Your task to perform on an android device: Add macbook air to the cart on amazon Image 0: 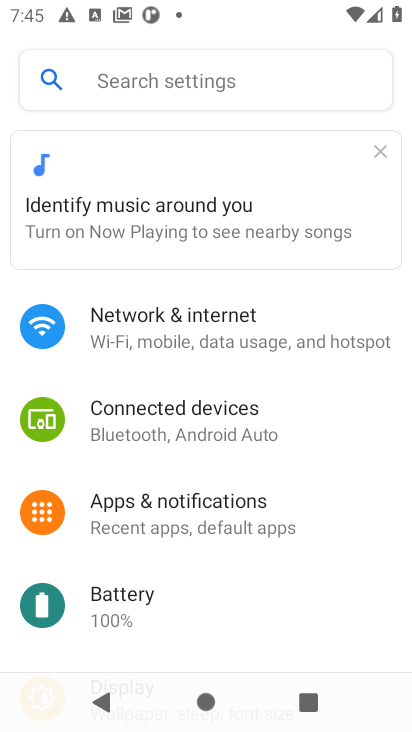
Step 0: press home button
Your task to perform on an android device: Add macbook air to the cart on amazon Image 1: 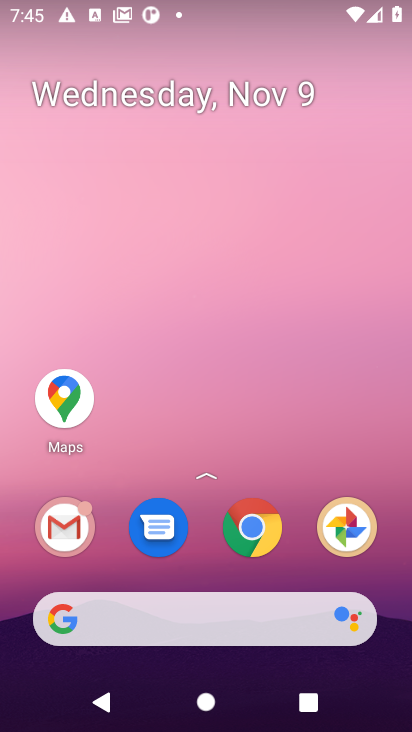
Step 1: click (248, 536)
Your task to perform on an android device: Add macbook air to the cart on amazon Image 2: 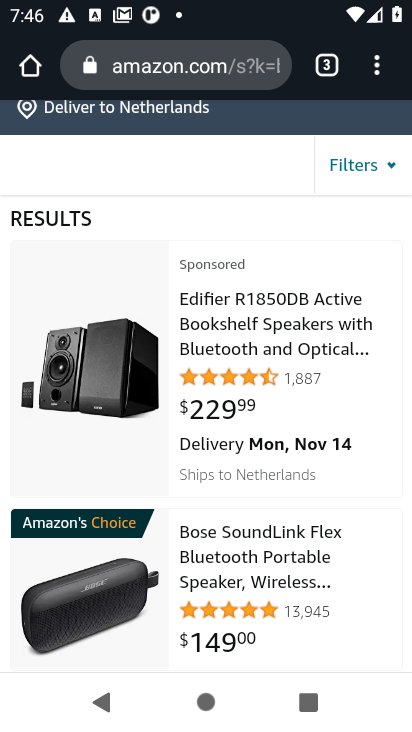
Step 2: drag from (201, 227) to (196, 378)
Your task to perform on an android device: Add macbook air to the cart on amazon Image 3: 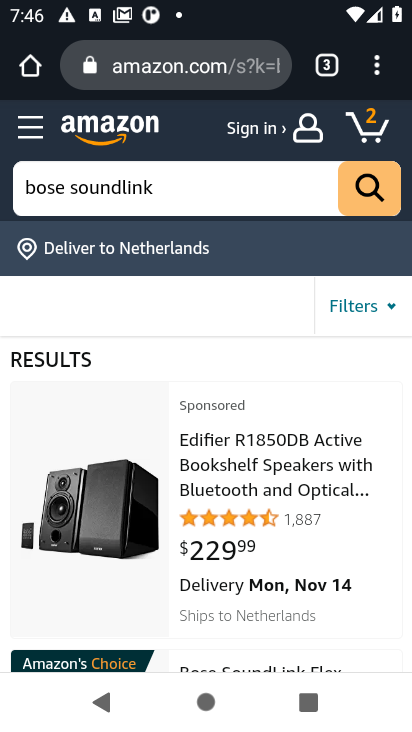
Step 3: click (171, 199)
Your task to perform on an android device: Add macbook air to the cart on amazon Image 4: 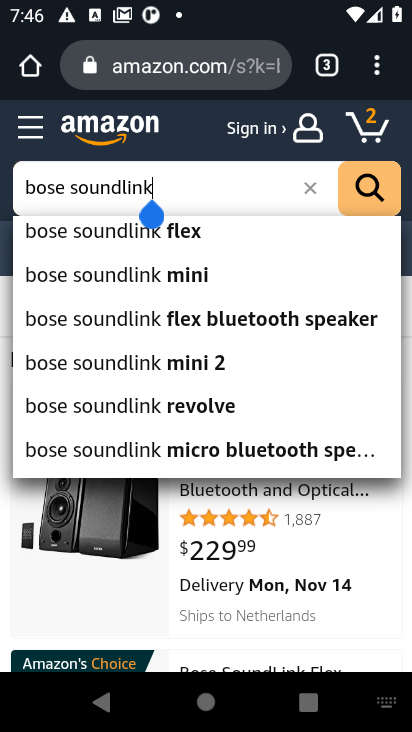
Step 4: click (308, 195)
Your task to perform on an android device: Add macbook air to the cart on amazon Image 5: 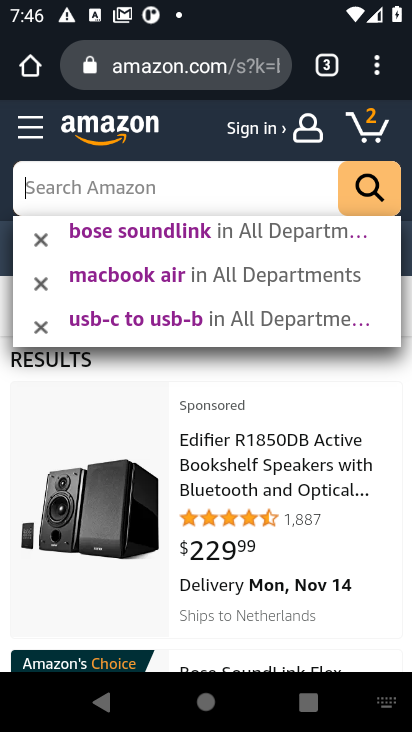
Step 5: type "macbook air"
Your task to perform on an android device: Add macbook air to the cart on amazon Image 6: 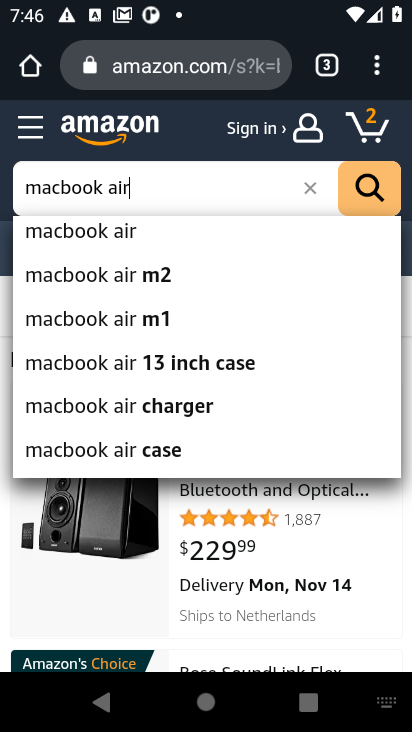
Step 6: click (95, 239)
Your task to perform on an android device: Add macbook air to the cart on amazon Image 7: 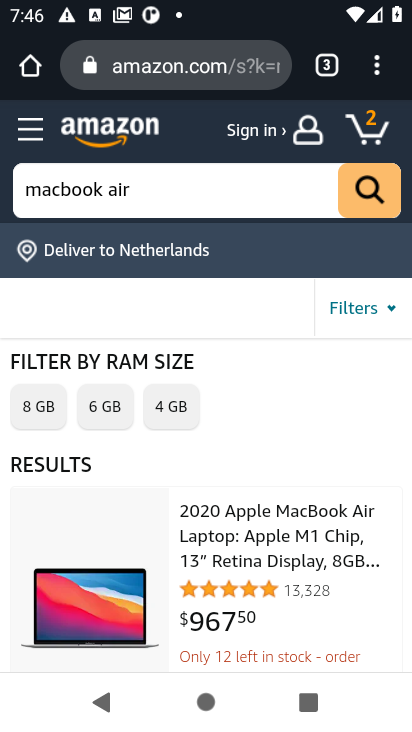
Step 7: drag from (96, 584) to (114, 293)
Your task to perform on an android device: Add macbook air to the cart on amazon Image 8: 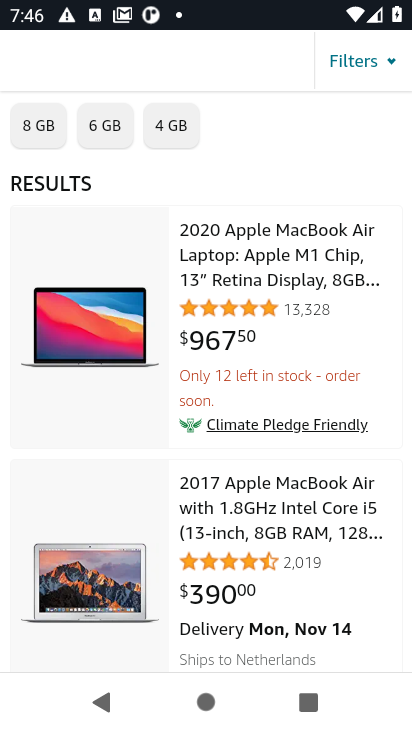
Step 8: drag from (95, 528) to (103, 218)
Your task to perform on an android device: Add macbook air to the cart on amazon Image 9: 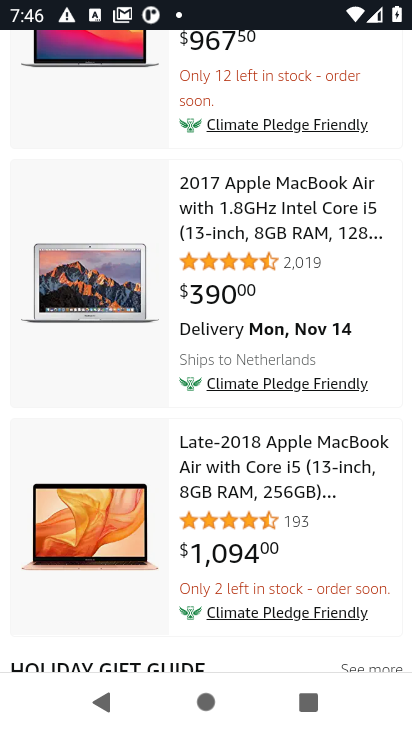
Step 9: click (116, 284)
Your task to perform on an android device: Add macbook air to the cart on amazon Image 10: 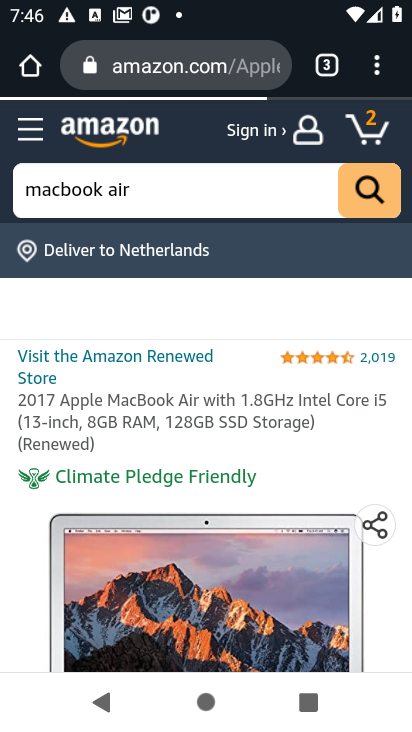
Step 10: drag from (140, 471) to (153, 180)
Your task to perform on an android device: Add macbook air to the cart on amazon Image 11: 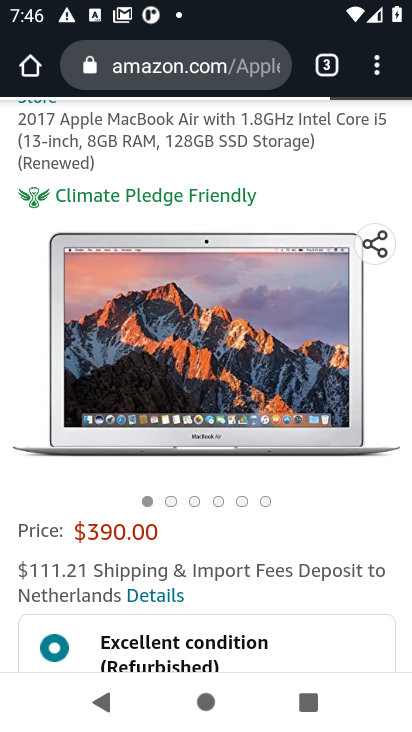
Step 11: drag from (164, 487) to (156, 183)
Your task to perform on an android device: Add macbook air to the cart on amazon Image 12: 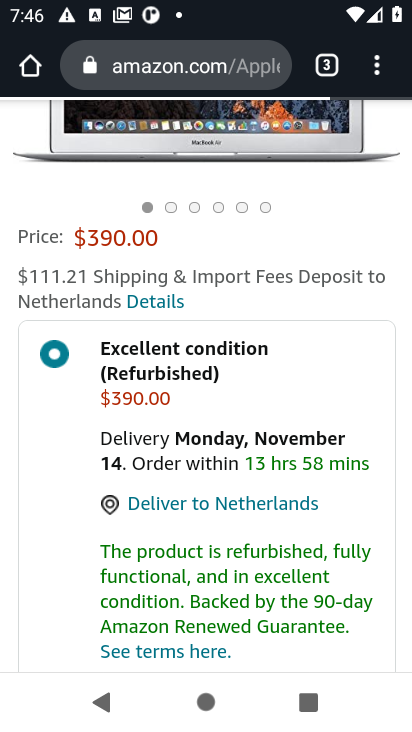
Step 12: drag from (186, 415) to (163, 147)
Your task to perform on an android device: Add macbook air to the cart on amazon Image 13: 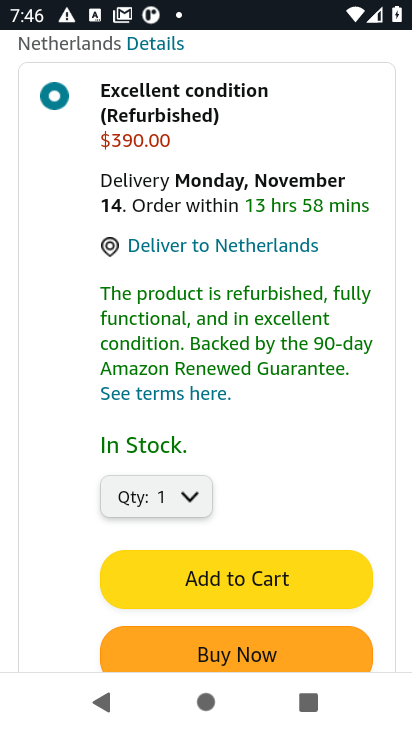
Step 13: click (228, 579)
Your task to perform on an android device: Add macbook air to the cart on amazon Image 14: 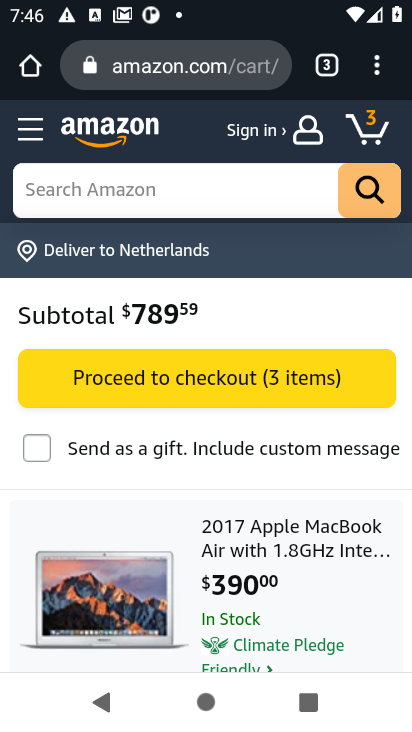
Step 14: task complete